Your task to perform on an android device: uninstall "YouTube Kids" Image 0: 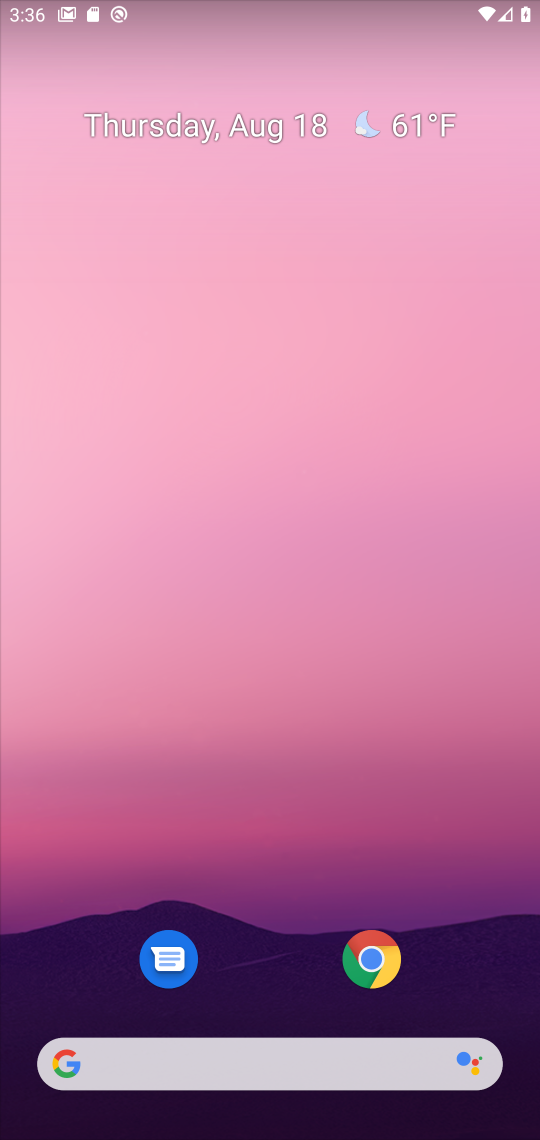
Step 0: drag from (332, 946) to (453, 390)
Your task to perform on an android device: uninstall "YouTube Kids" Image 1: 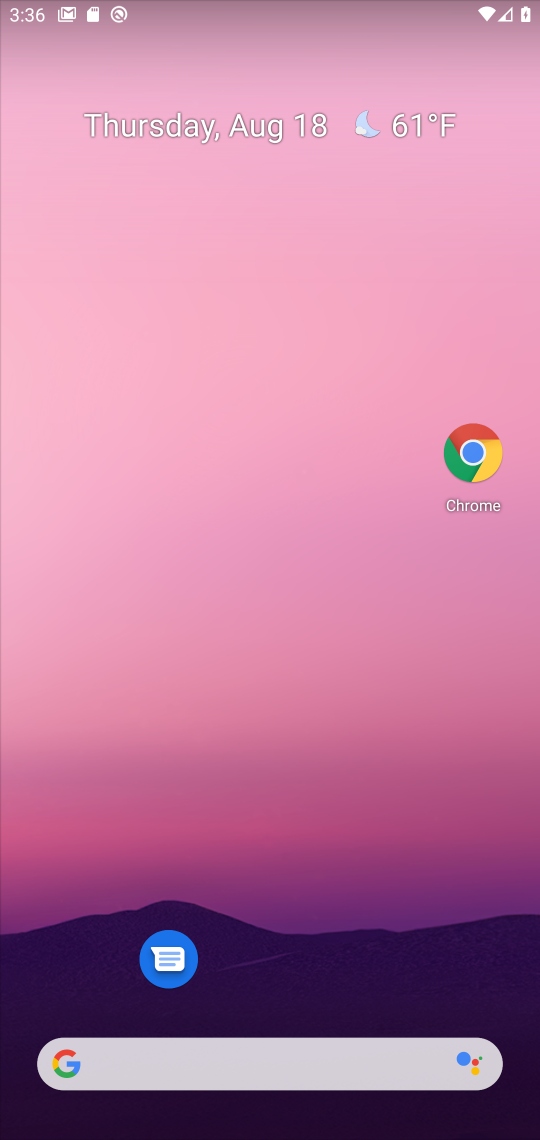
Step 1: task complete